Your task to perform on an android device: Turn off the flashlight Image 0: 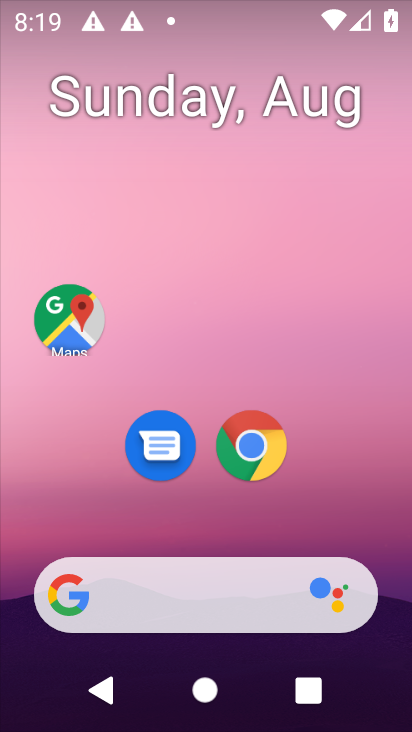
Step 0: press home button
Your task to perform on an android device: Turn off the flashlight Image 1: 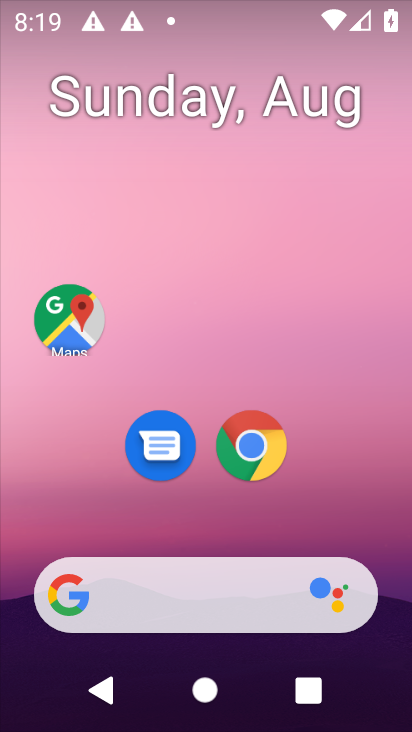
Step 1: drag from (206, 541) to (229, 72)
Your task to perform on an android device: Turn off the flashlight Image 2: 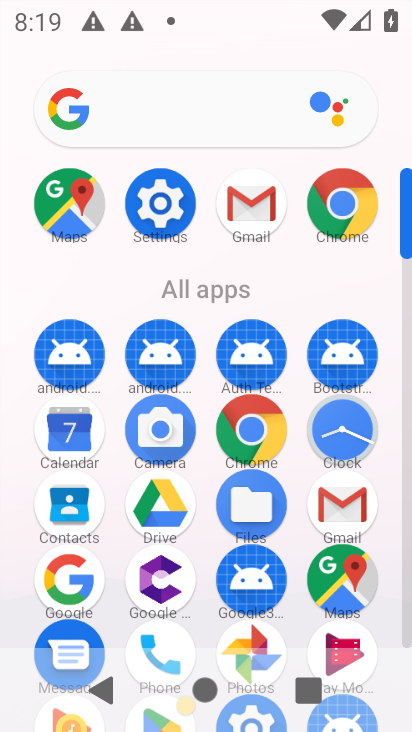
Step 2: click (159, 189)
Your task to perform on an android device: Turn off the flashlight Image 3: 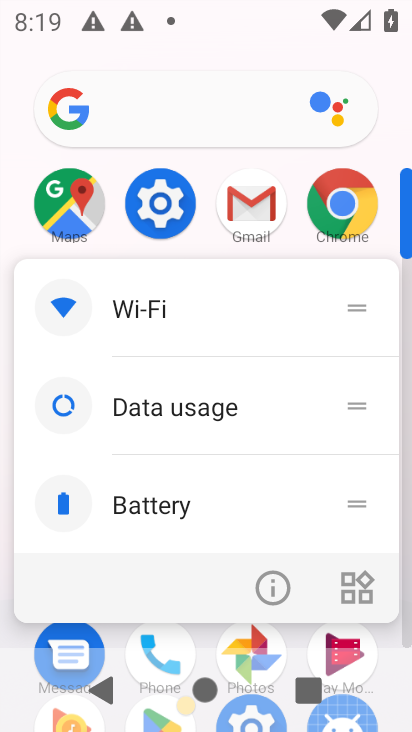
Step 3: click (157, 204)
Your task to perform on an android device: Turn off the flashlight Image 4: 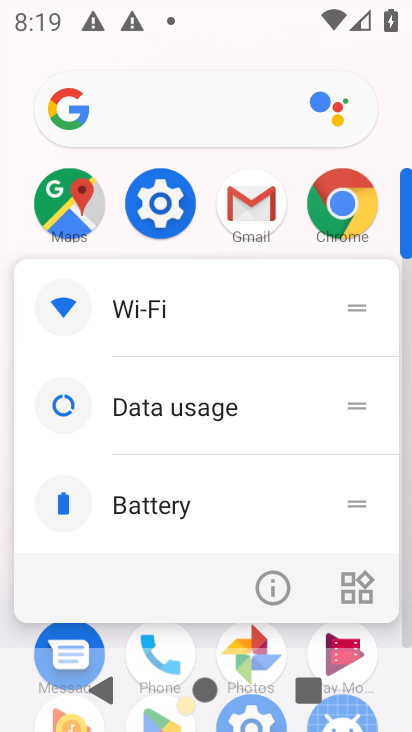
Step 4: click (157, 204)
Your task to perform on an android device: Turn off the flashlight Image 5: 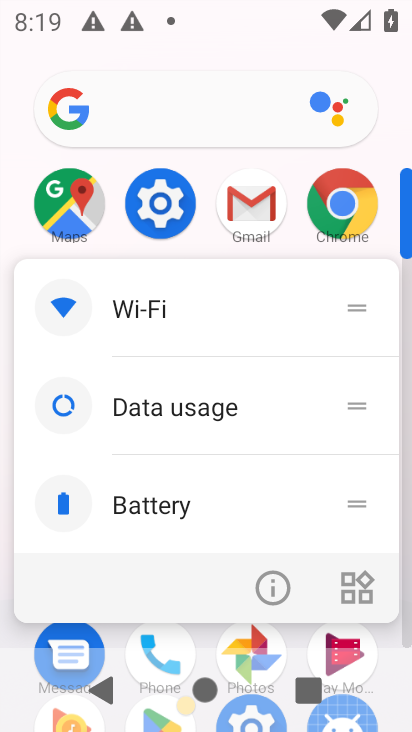
Step 5: click (157, 199)
Your task to perform on an android device: Turn off the flashlight Image 6: 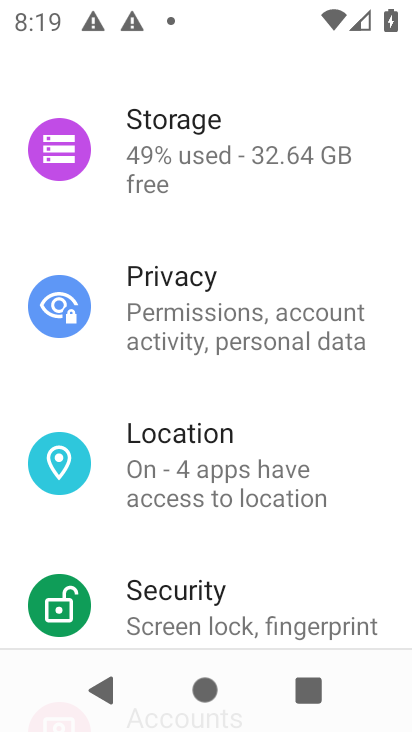
Step 6: drag from (221, 115) to (202, 623)
Your task to perform on an android device: Turn off the flashlight Image 7: 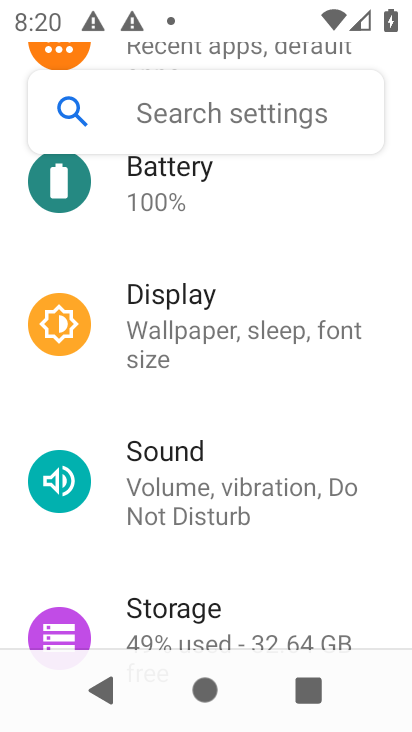
Step 7: click (171, 111)
Your task to perform on an android device: Turn off the flashlight Image 8: 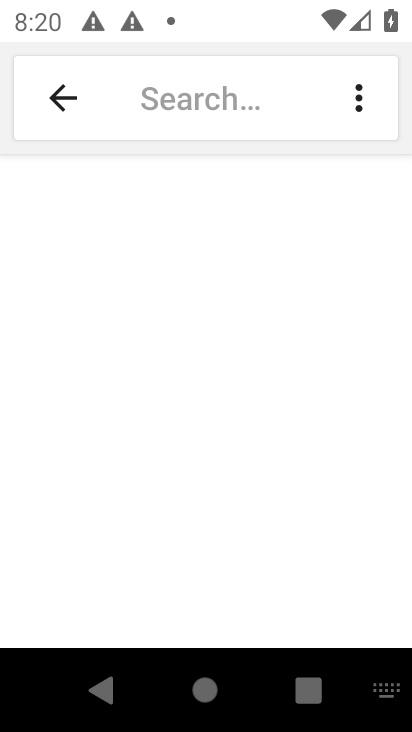
Step 8: type "flashlight"
Your task to perform on an android device: Turn off the flashlight Image 9: 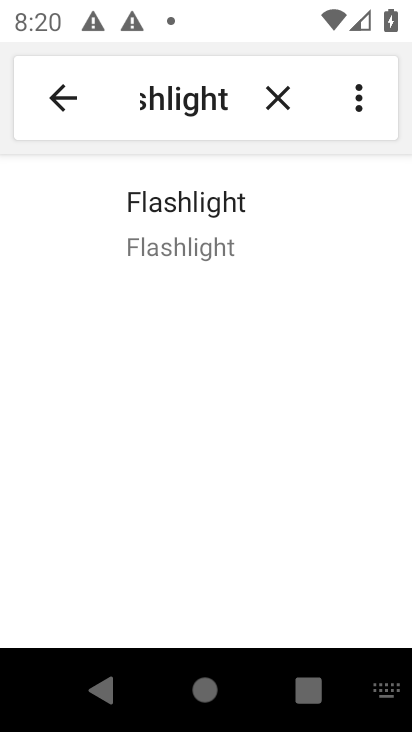
Step 9: click (215, 224)
Your task to perform on an android device: Turn off the flashlight Image 10: 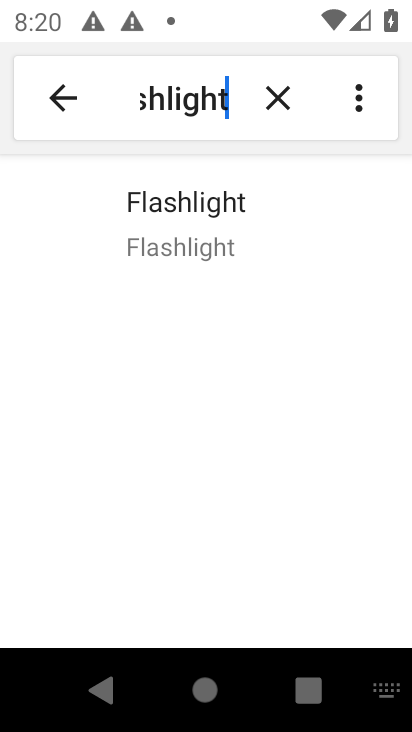
Step 10: click (179, 221)
Your task to perform on an android device: Turn off the flashlight Image 11: 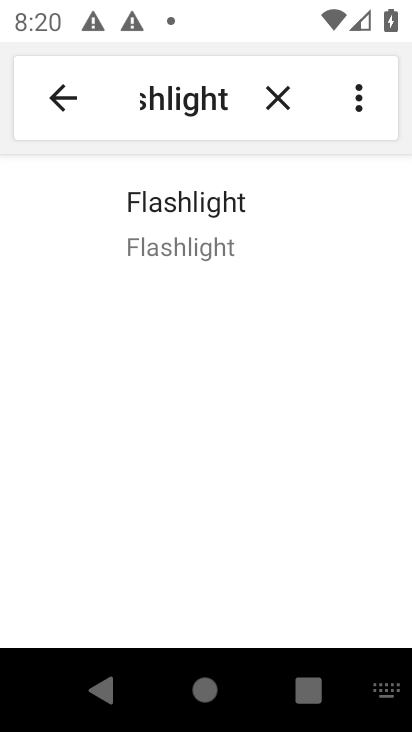
Step 11: task complete